Your task to perform on an android device: check android version Image 0: 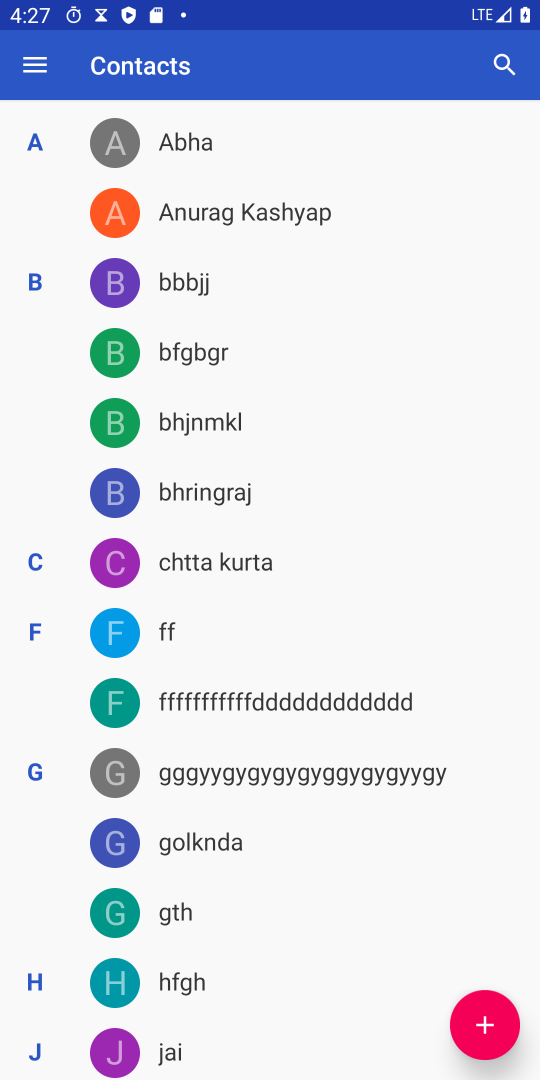
Step 0: press home button
Your task to perform on an android device: check android version Image 1: 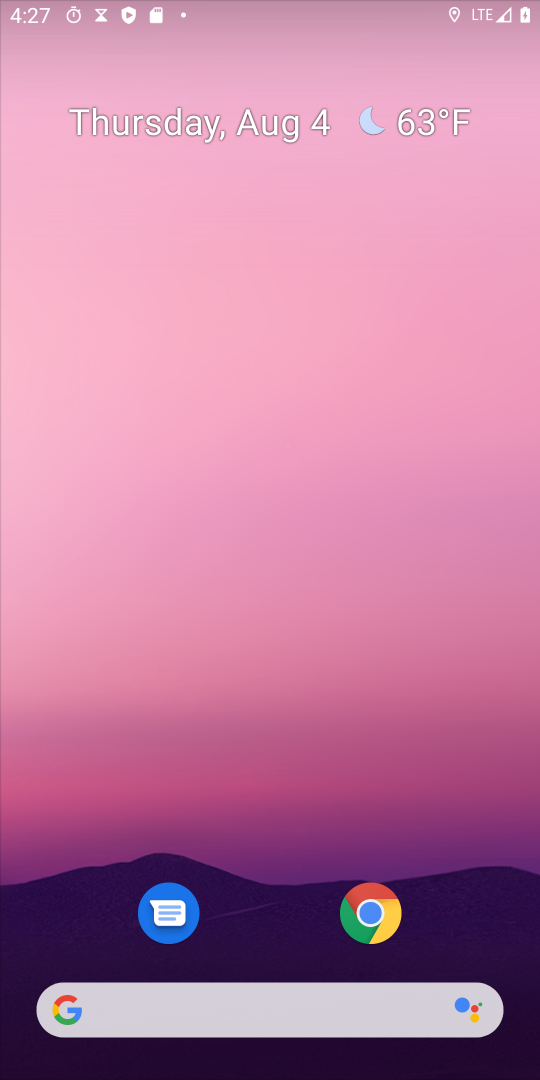
Step 1: drag from (323, 1044) to (412, 131)
Your task to perform on an android device: check android version Image 2: 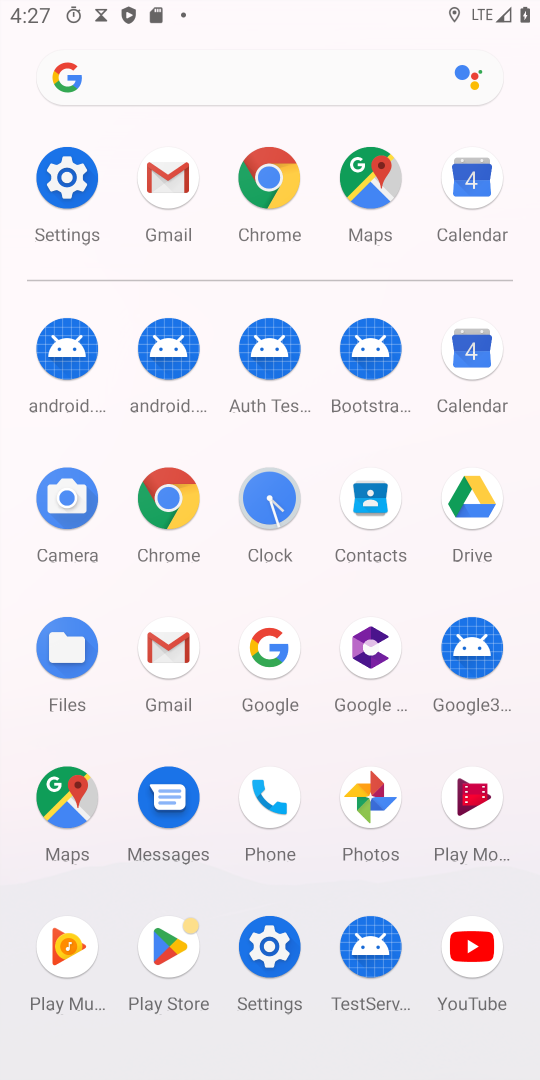
Step 2: click (71, 183)
Your task to perform on an android device: check android version Image 3: 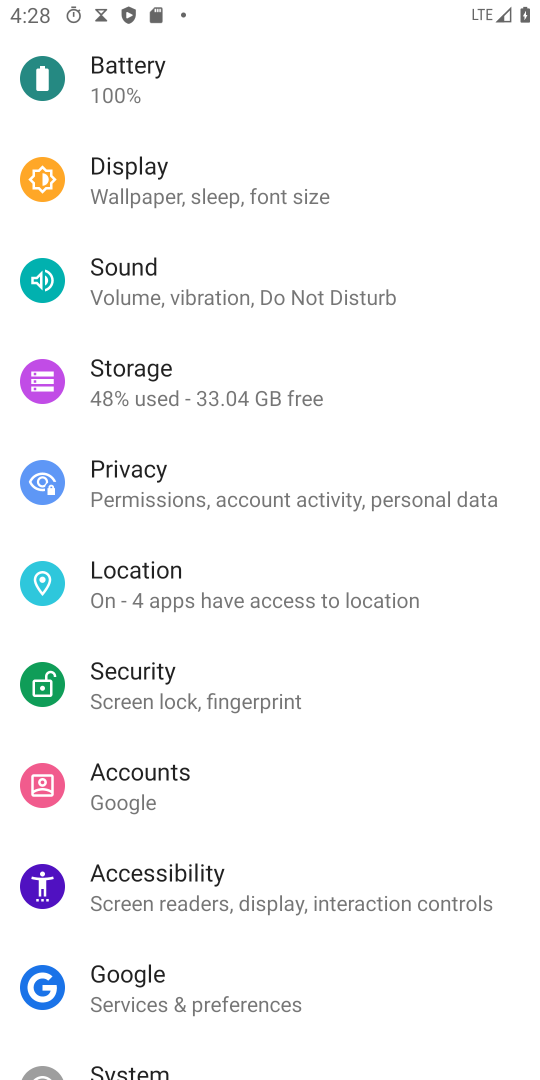
Step 3: drag from (223, 1035) to (415, 208)
Your task to perform on an android device: check android version Image 4: 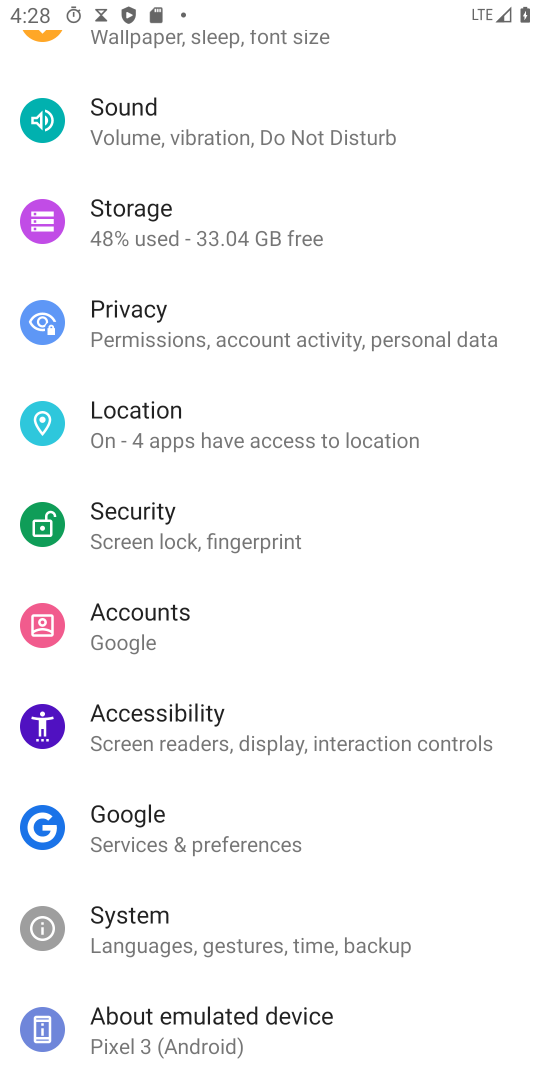
Step 4: click (231, 1029)
Your task to perform on an android device: check android version Image 5: 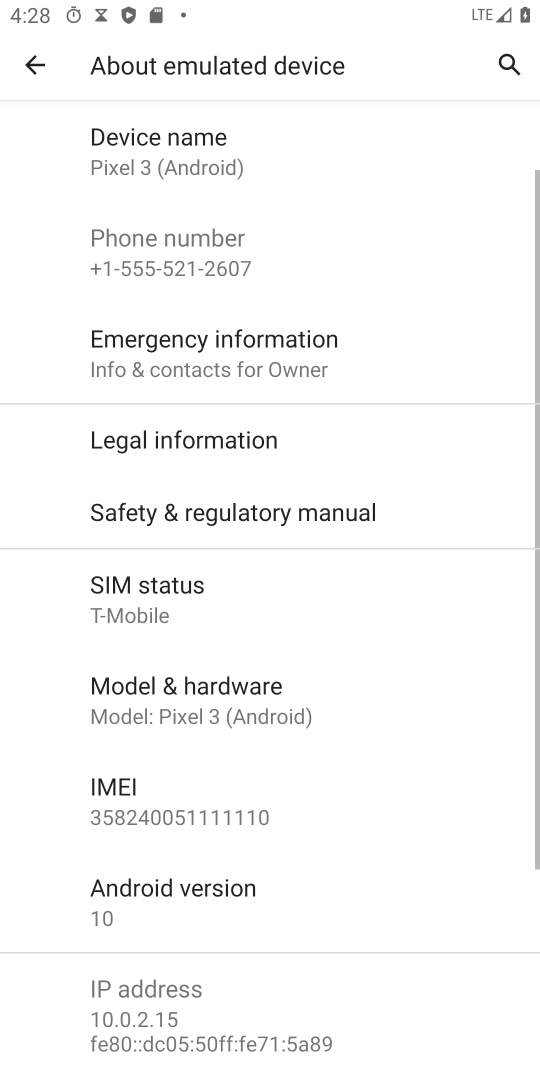
Step 5: click (235, 918)
Your task to perform on an android device: check android version Image 6: 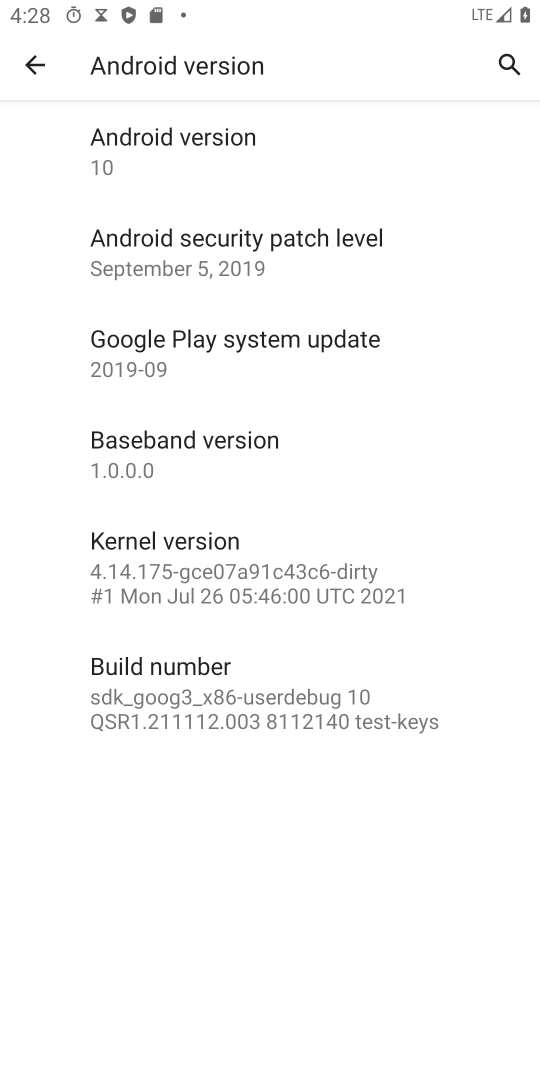
Step 6: task complete